Your task to perform on an android device: What is the news today? Image 0: 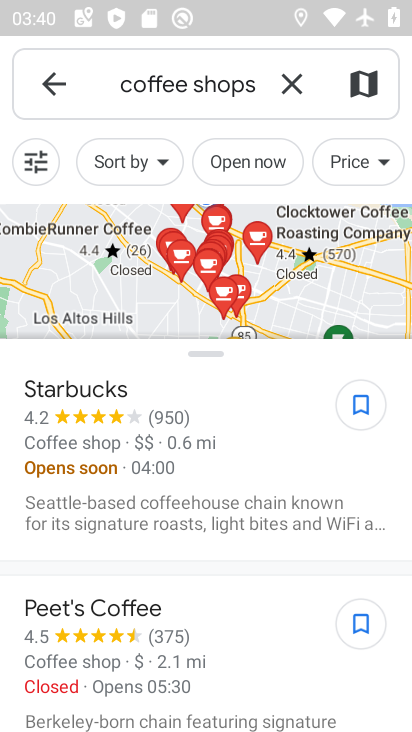
Step 0: press home button
Your task to perform on an android device: What is the news today? Image 1: 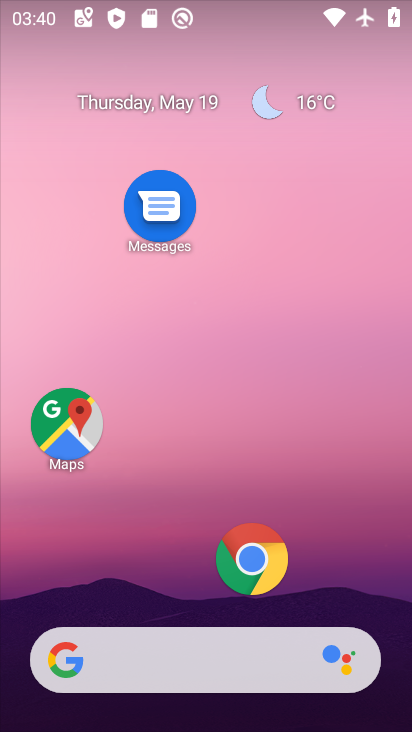
Step 1: drag from (211, 595) to (202, 261)
Your task to perform on an android device: What is the news today? Image 2: 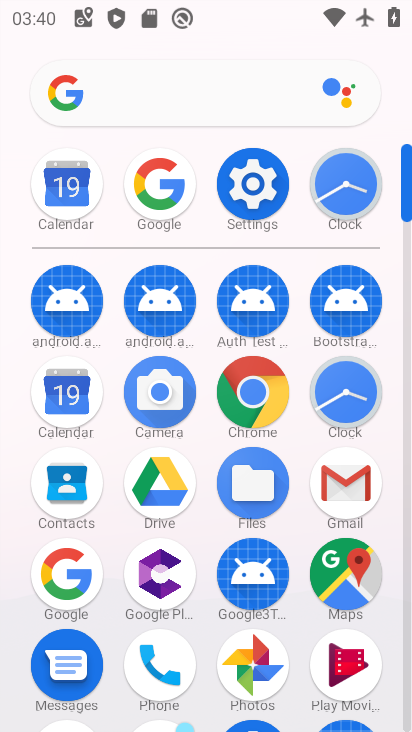
Step 2: click (75, 565)
Your task to perform on an android device: What is the news today? Image 3: 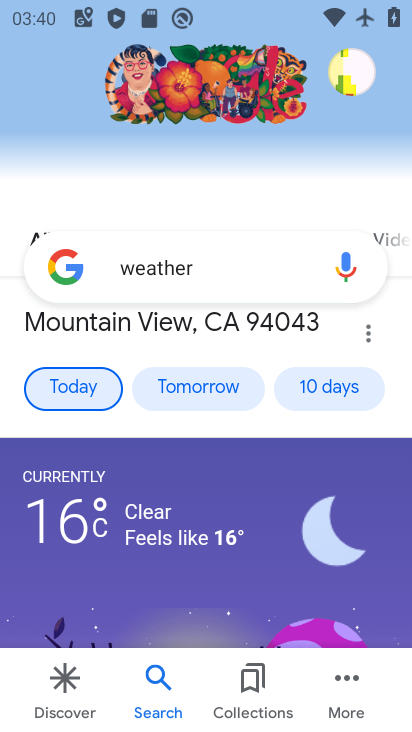
Step 3: click (236, 259)
Your task to perform on an android device: What is the news today? Image 4: 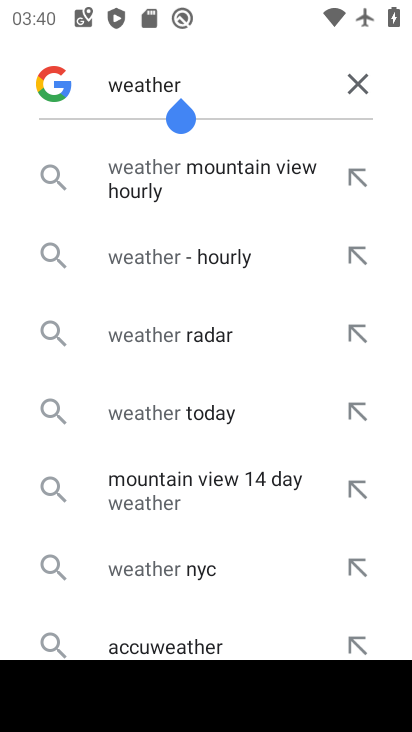
Step 4: click (344, 77)
Your task to perform on an android device: What is the news today? Image 5: 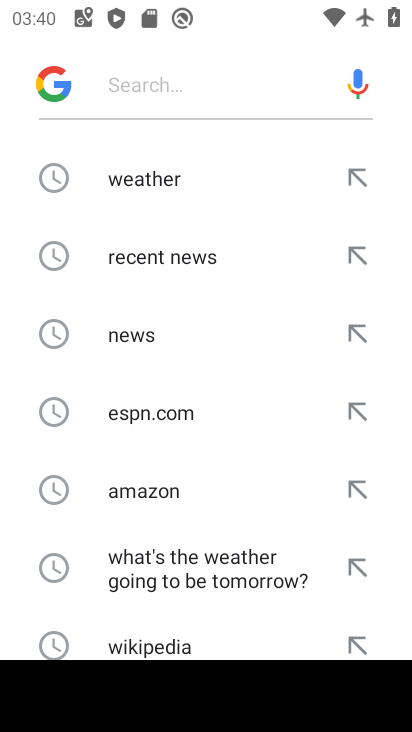
Step 5: click (154, 334)
Your task to perform on an android device: What is the news today? Image 6: 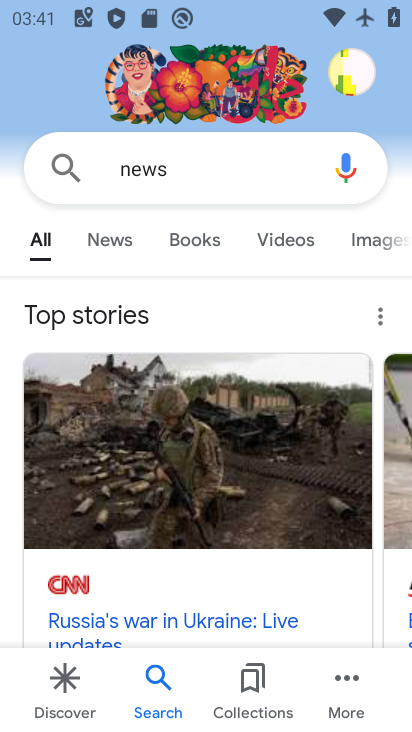
Step 6: click (107, 245)
Your task to perform on an android device: What is the news today? Image 7: 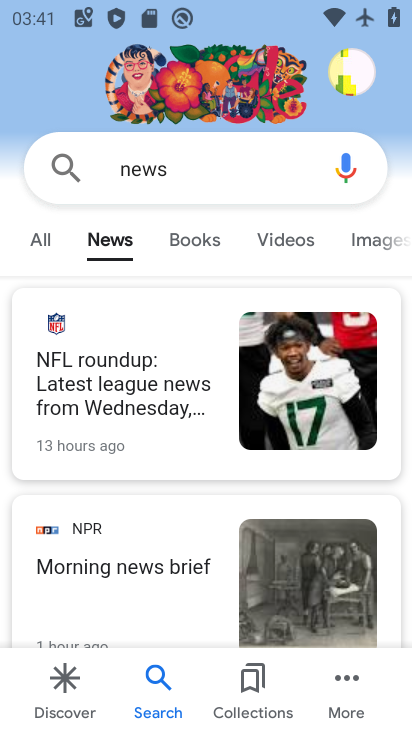
Step 7: task complete